Your task to perform on an android device: Show me popular games on the Play Store Image 0: 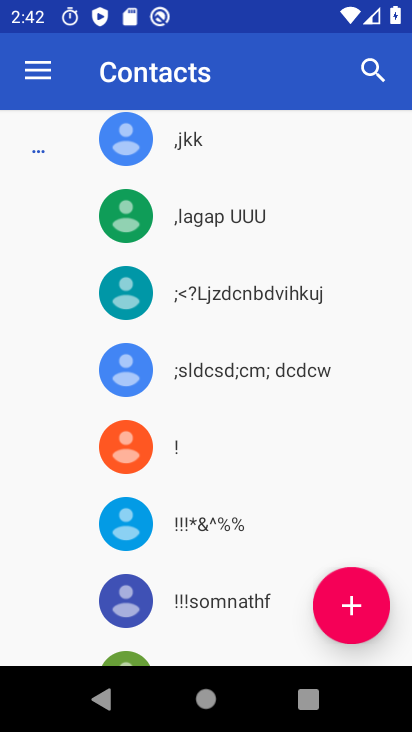
Step 0: press home button
Your task to perform on an android device: Show me popular games on the Play Store Image 1: 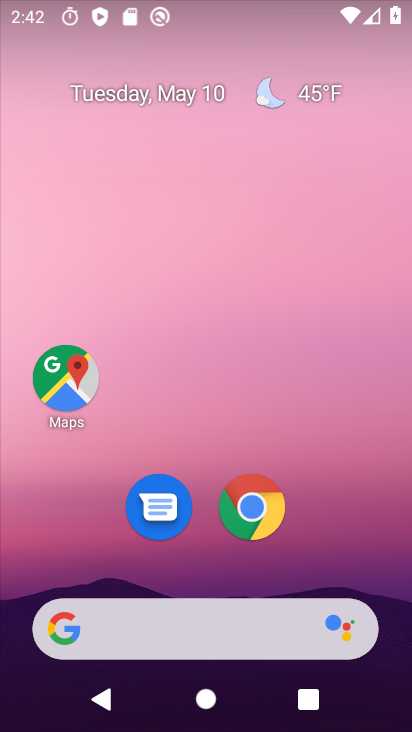
Step 1: drag from (228, 588) to (259, 214)
Your task to perform on an android device: Show me popular games on the Play Store Image 2: 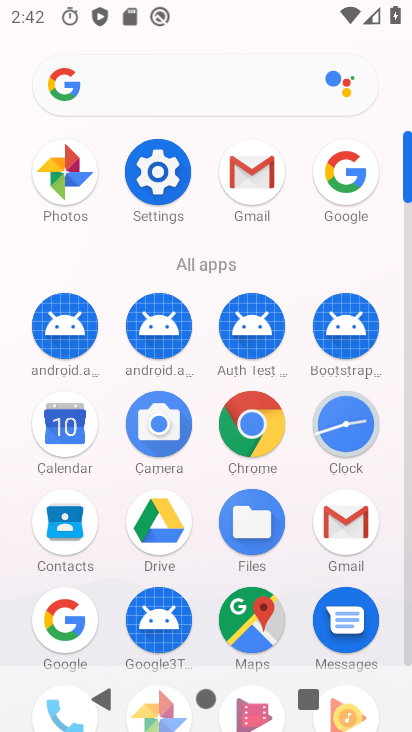
Step 2: drag from (108, 649) to (138, 336)
Your task to perform on an android device: Show me popular games on the Play Store Image 3: 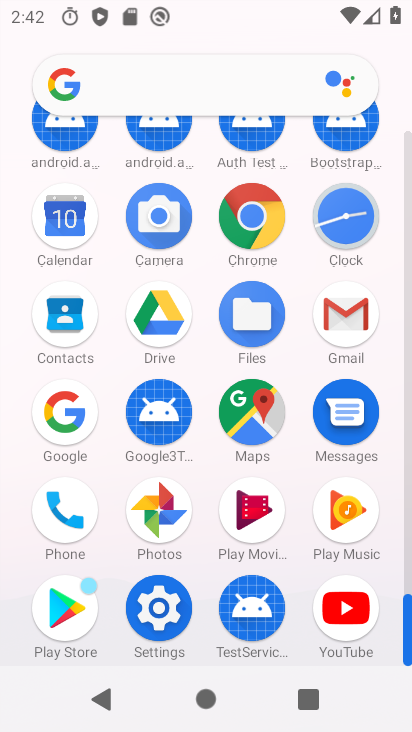
Step 3: click (50, 603)
Your task to perform on an android device: Show me popular games on the Play Store Image 4: 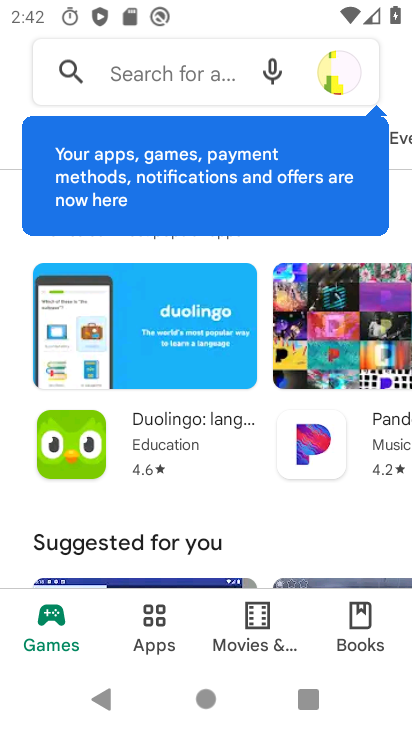
Step 4: click (181, 61)
Your task to perform on an android device: Show me popular games on the Play Store Image 5: 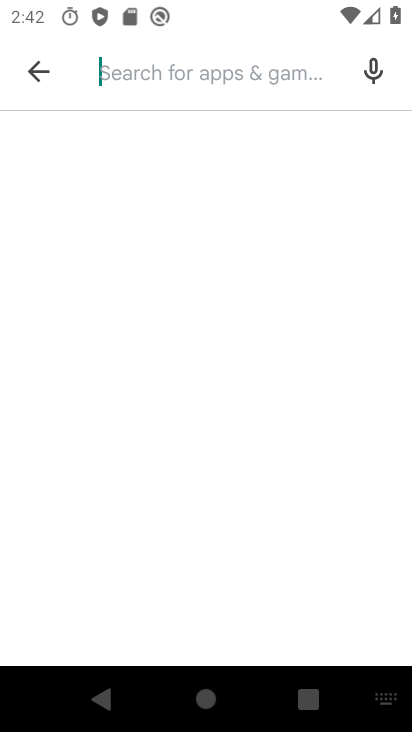
Step 5: type "popular games"
Your task to perform on an android device: Show me popular games on the Play Store Image 6: 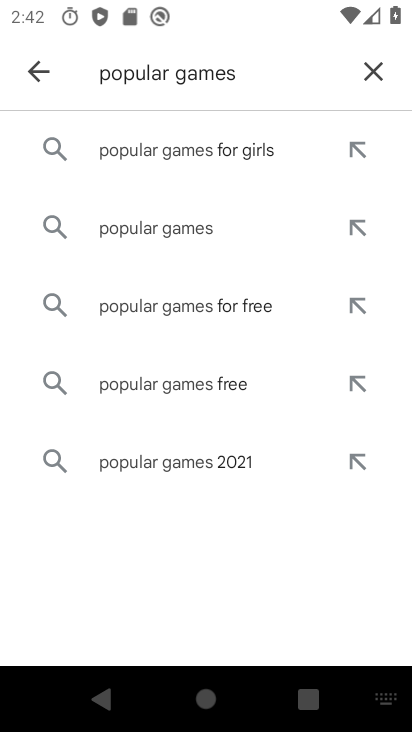
Step 6: click (168, 230)
Your task to perform on an android device: Show me popular games on the Play Store Image 7: 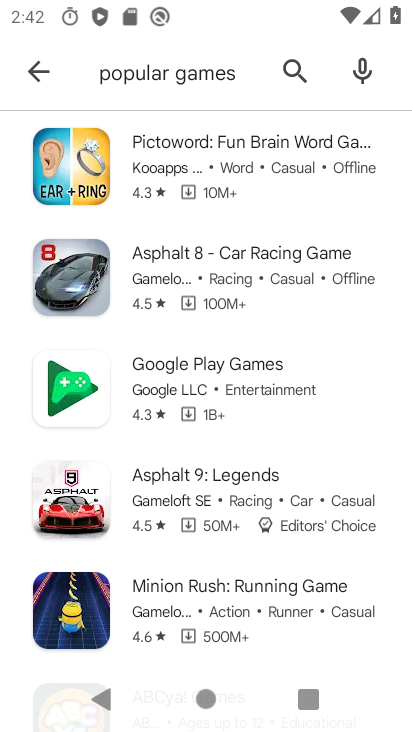
Step 7: task complete